Your task to perform on an android device: uninstall "File Manager" Image 0: 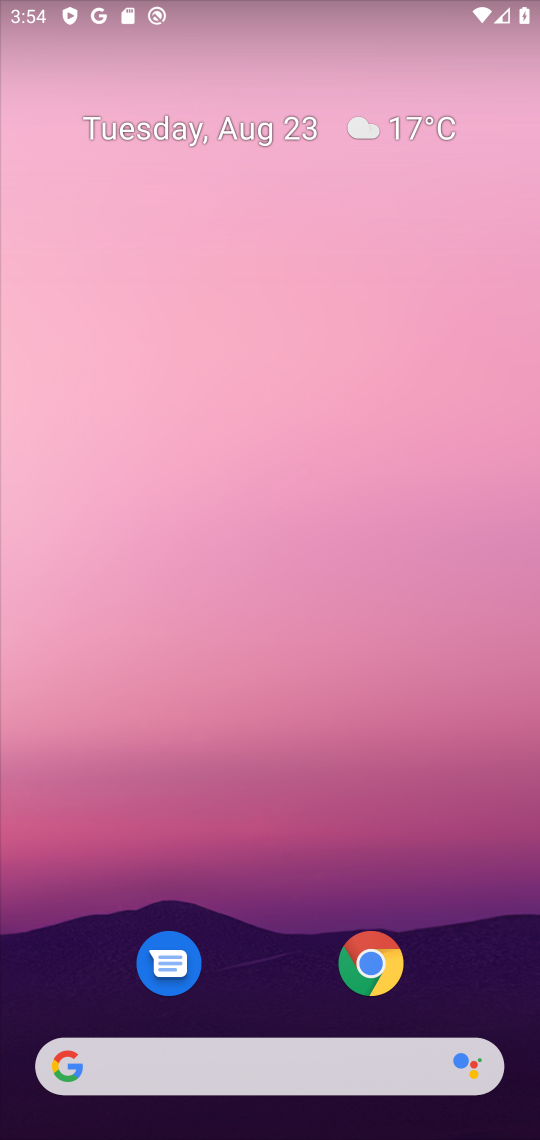
Step 0: press home button
Your task to perform on an android device: uninstall "File Manager" Image 1: 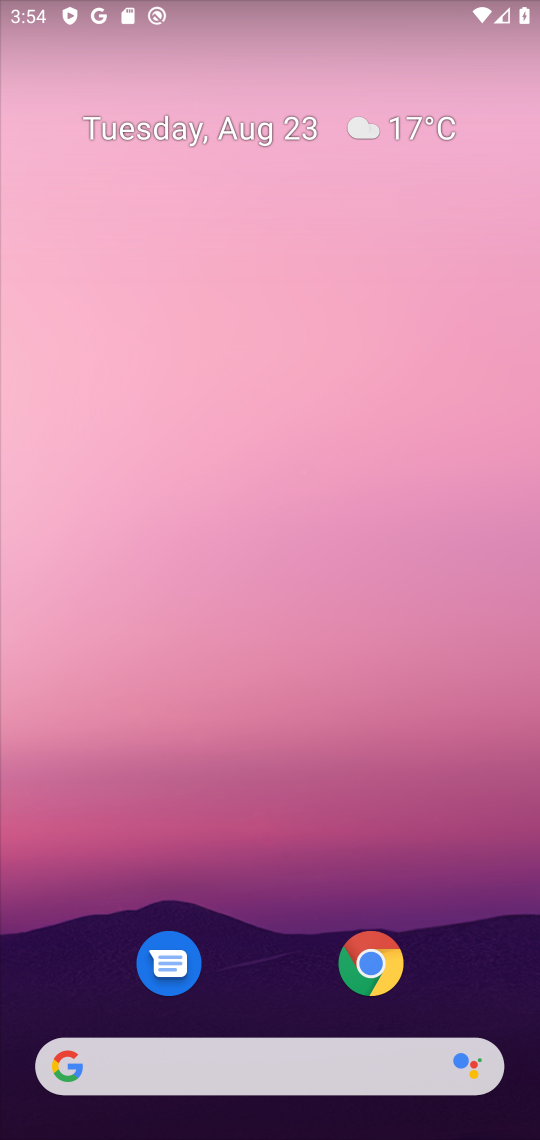
Step 1: drag from (297, 991) to (314, 62)
Your task to perform on an android device: uninstall "File Manager" Image 2: 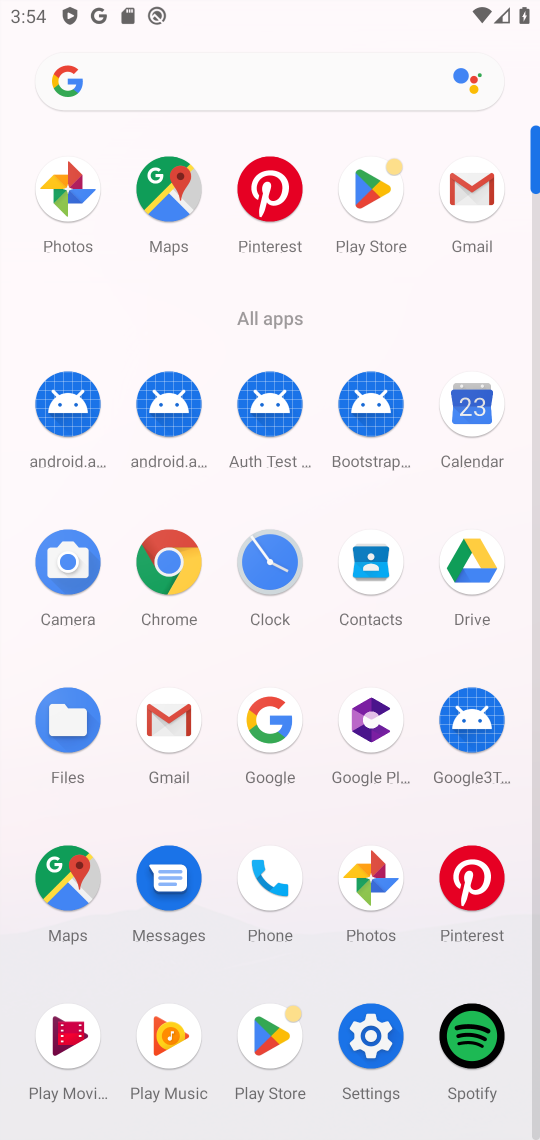
Step 2: click (363, 179)
Your task to perform on an android device: uninstall "File Manager" Image 3: 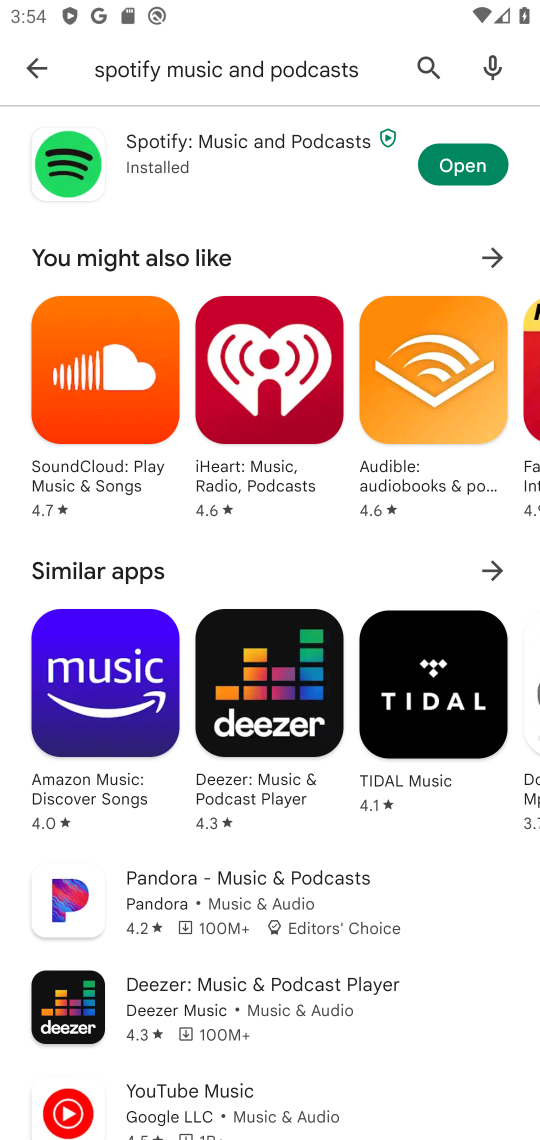
Step 3: click (415, 57)
Your task to perform on an android device: uninstall "File Manager" Image 4: 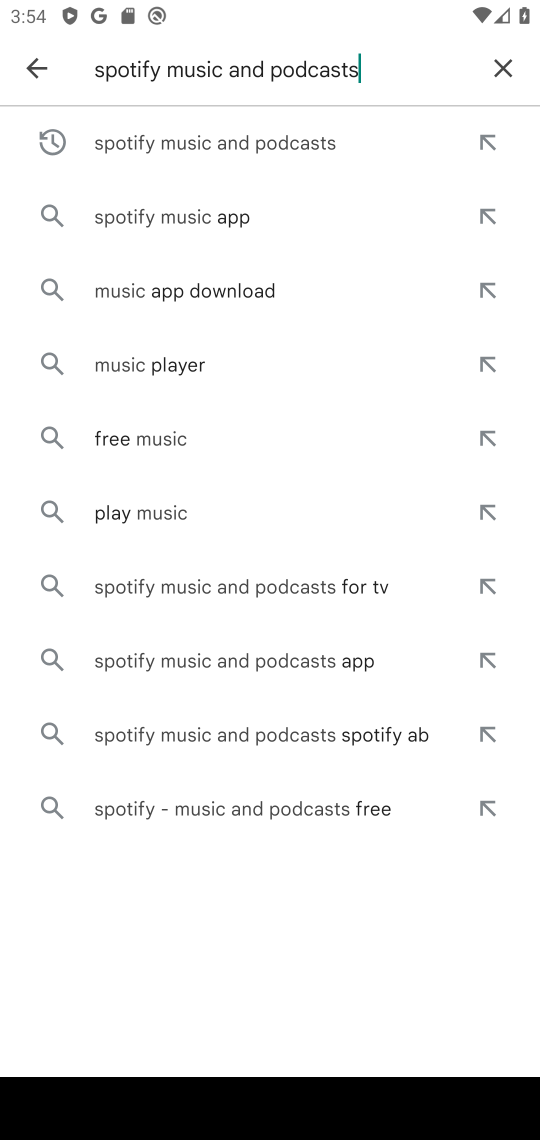
Step 4: click (508, 68)
Your task to perform on an android device: uninstall "File Manager" Image 5: 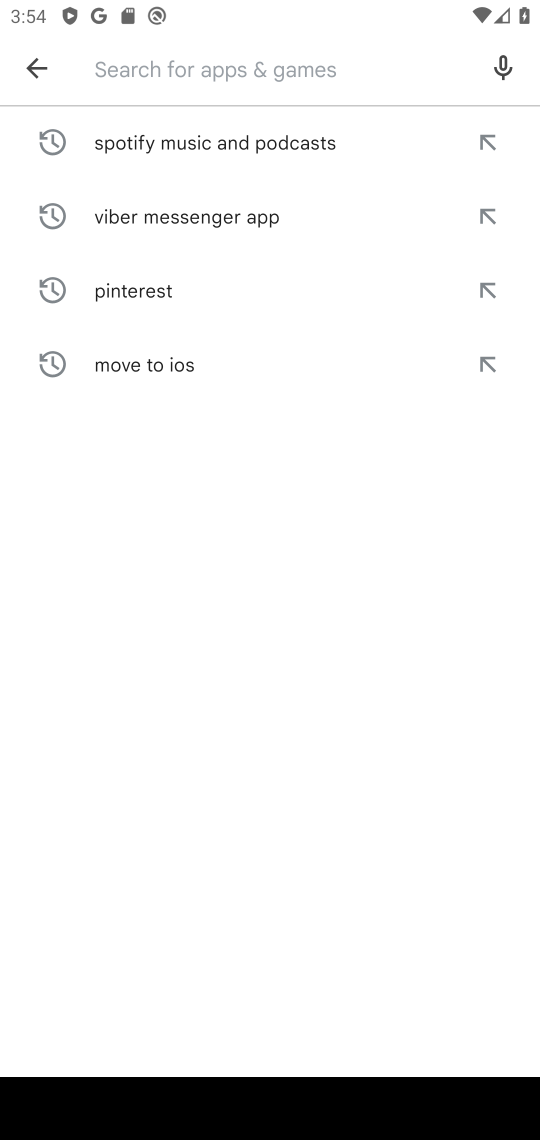
Step 5: type "File Manager"
Your task to perform on an android device: uninstall "File Manager" Image 6: 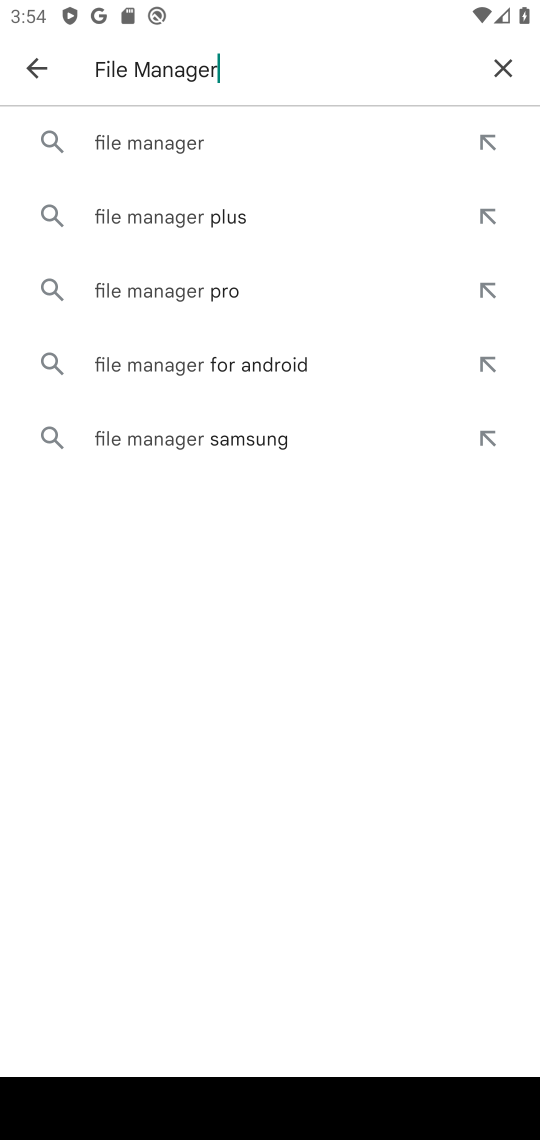
Step 6: click (223, 133)
Your task to perform on an android device: uninstall "File Manager" Image 7: 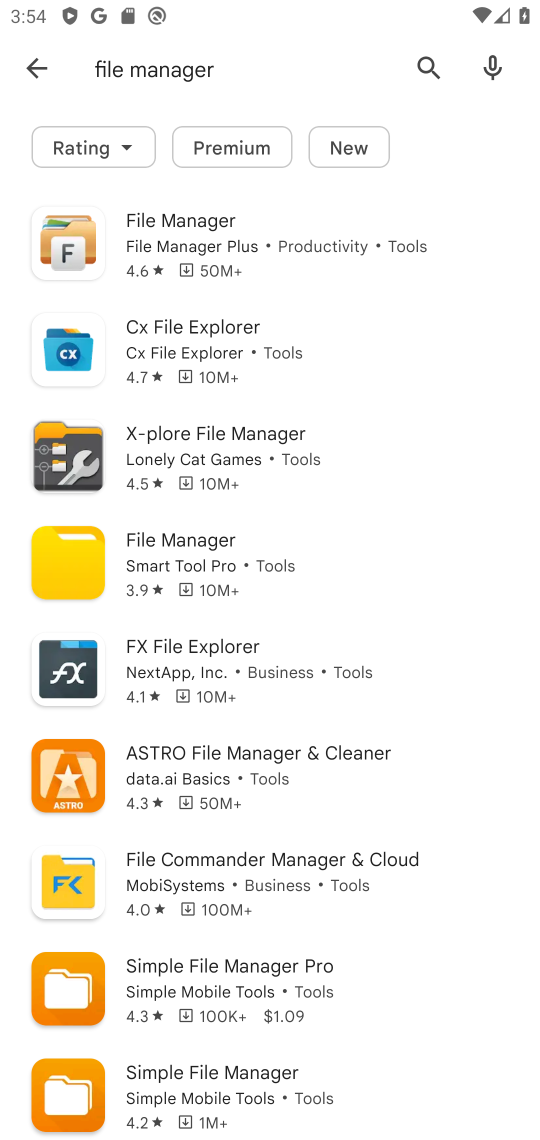
Step 7: task complete